Your task to perform on an android device: Open calendar and show me the third week of next month Image 0: 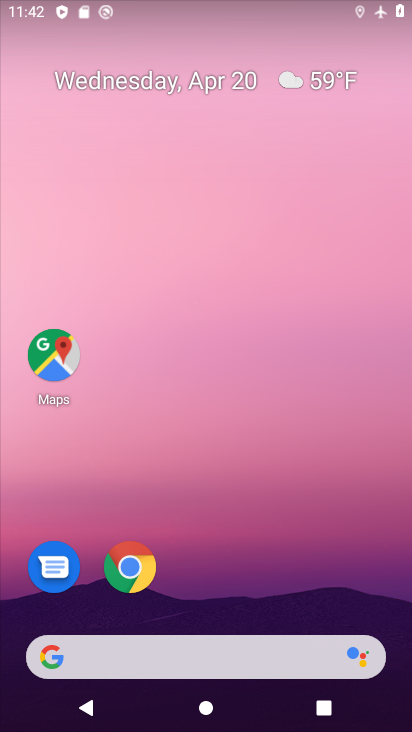
Step 0: drag from (215, 576) to (116, 145)
Your task to perform on an android device: Open calendar and show me the third week of next month Image 1: 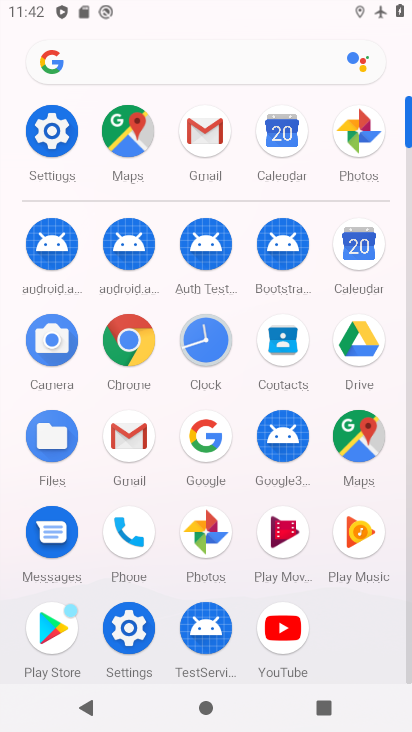
Step 1: click (352, 247)
Your task to perform on an android device: Open calendar and show me the third week of next month Image 2: 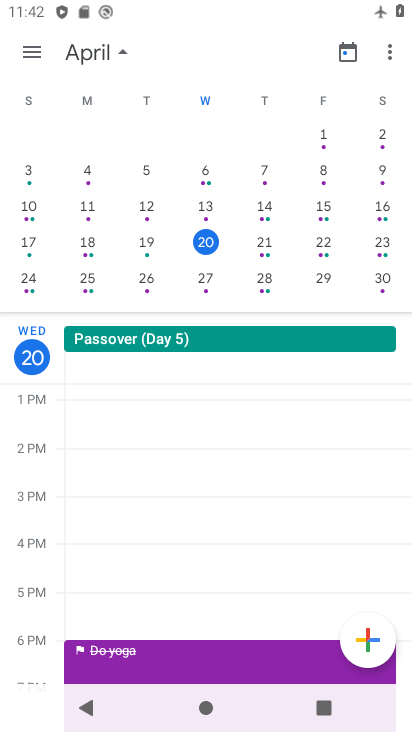
Step 2: drag from (396, 240) to (2, 328)
Your task to perform on an android device: Open calendar and show me the third week of next month Image 3: 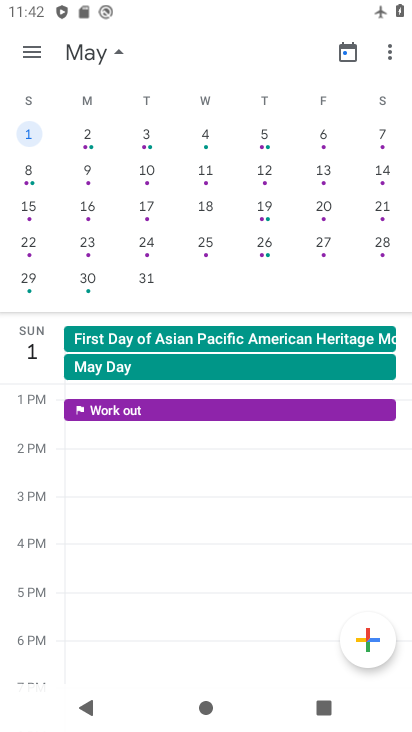
Step 3: click (43, 206)
Your task to perform on an android device: Open calendar and show me the third week of next month Image 4: 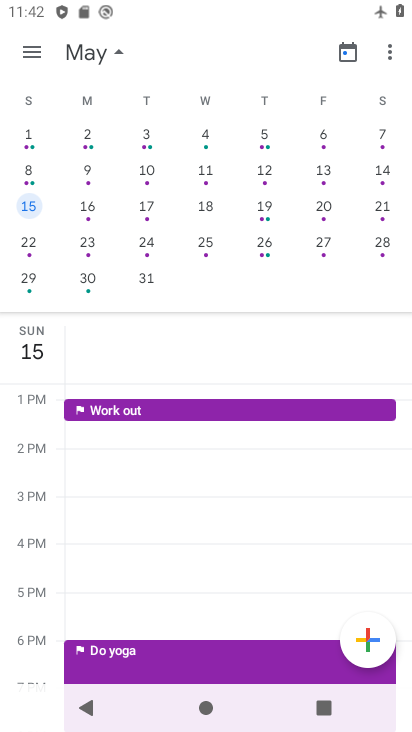
Step 4: task complete